Your task to perform on an android device: see sites visited before in the chrome app Image 0: 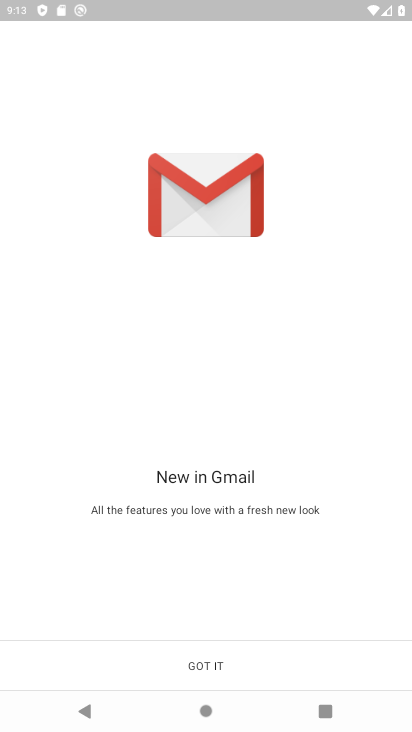
Step 0: press home button
Your task to perform on an android device: see sites visited before in the chrome app Image 1: 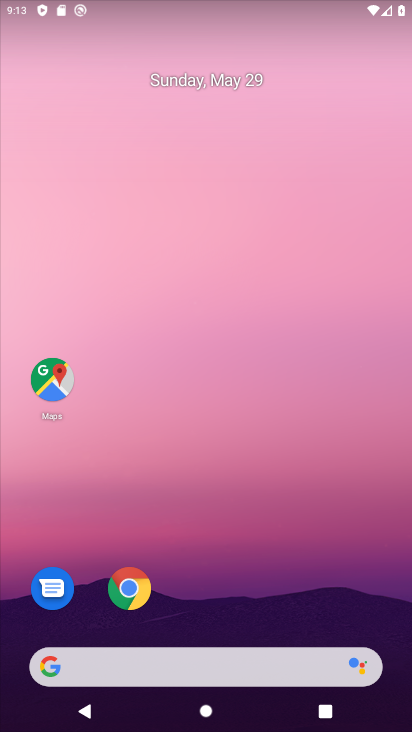
Step 1: click (130, 586)
Your task to perform on an android device: see sites visited before in the chrome app Image 2: 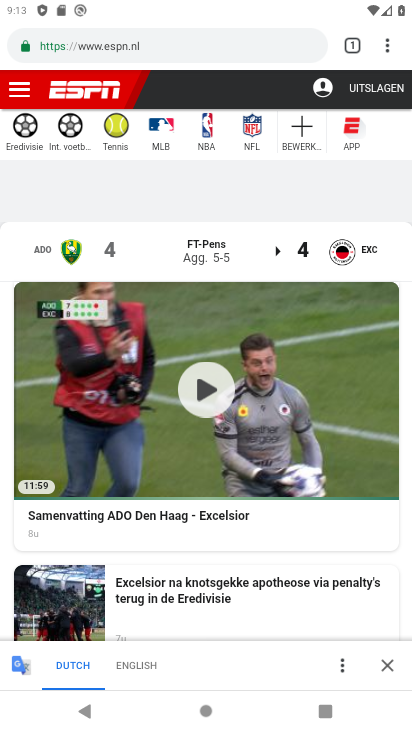
Step 2: click (386, 45)
Your task to perform on an android device: see sites visited before in the chrome app Image 3: 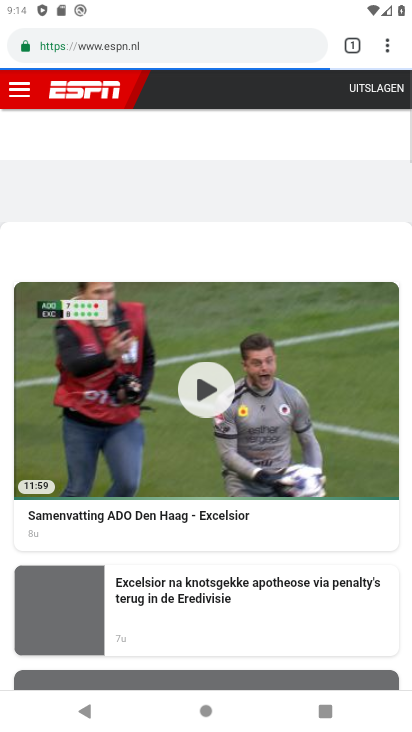
Step 3: click (374, 55)
Your task to perform on an android device: see sites visited before in the chrome app Image 4: 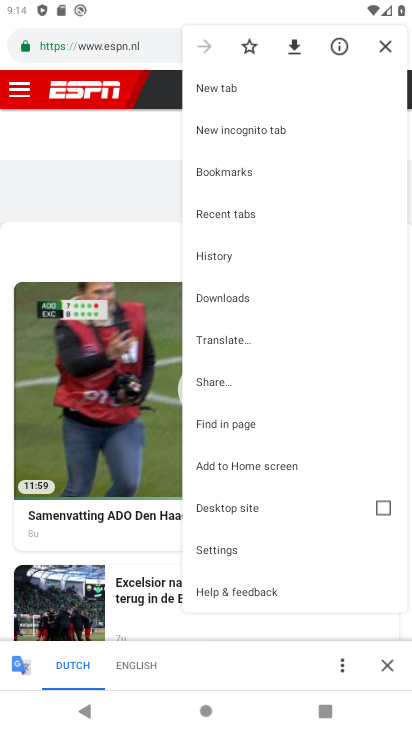
Step 4: click (229, 253)
Your task to perform on an android device: see sites visited before in the chrome app Image 5: 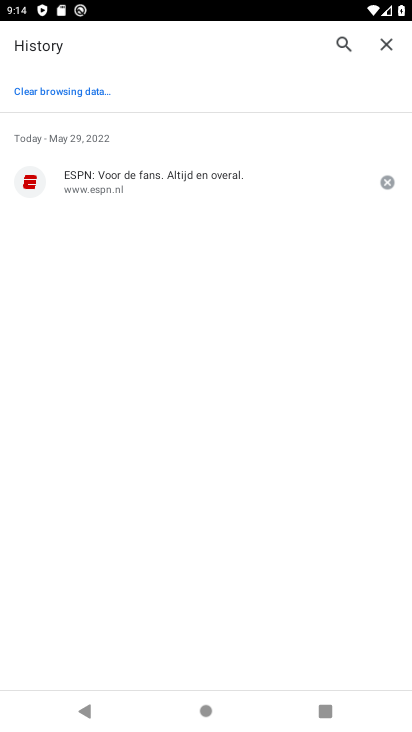
Step 5: task complete